Your task to perform on an android device: remove spam from my inbox in the gmail app Image 0: 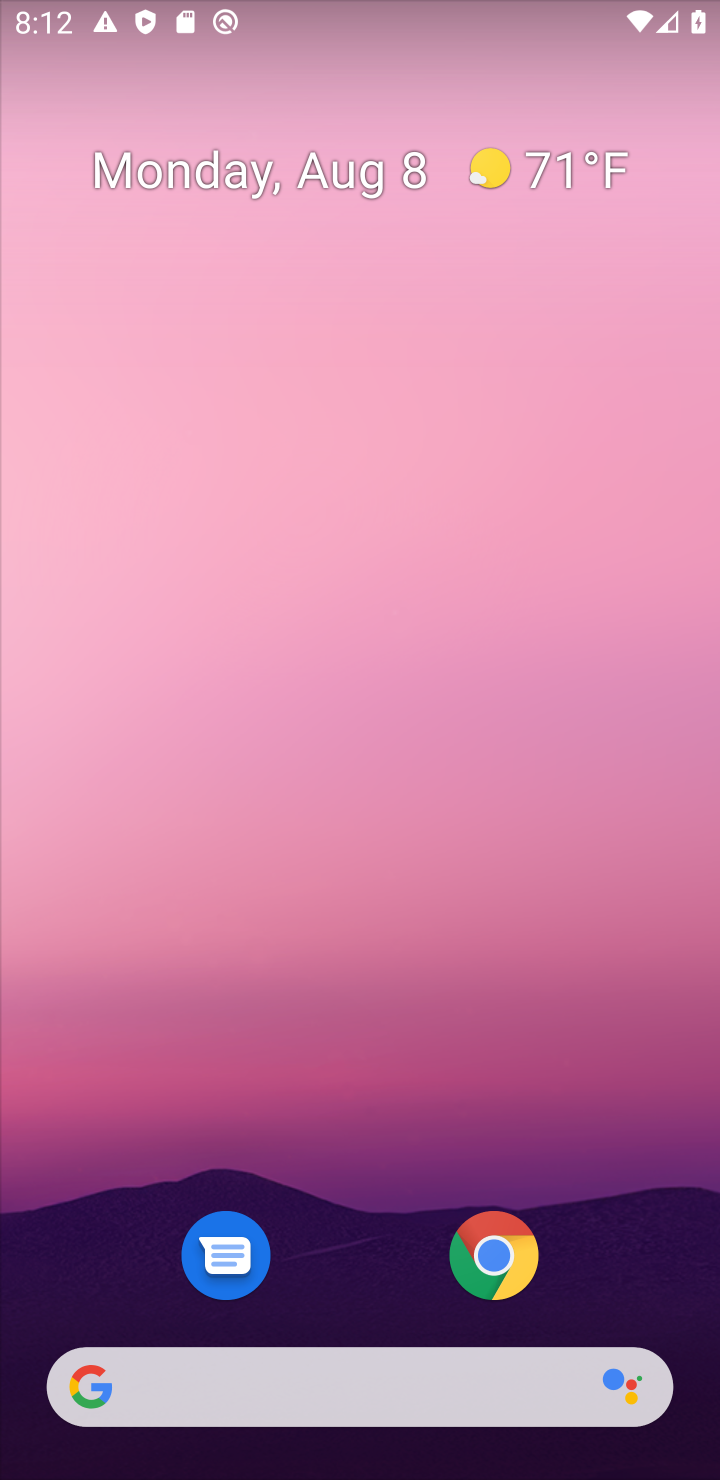
Step 0: drag from (345, 1243) to (293, 128)
Your task to perform on an android device: remove spam from my inbox in the gmail app Image 1: 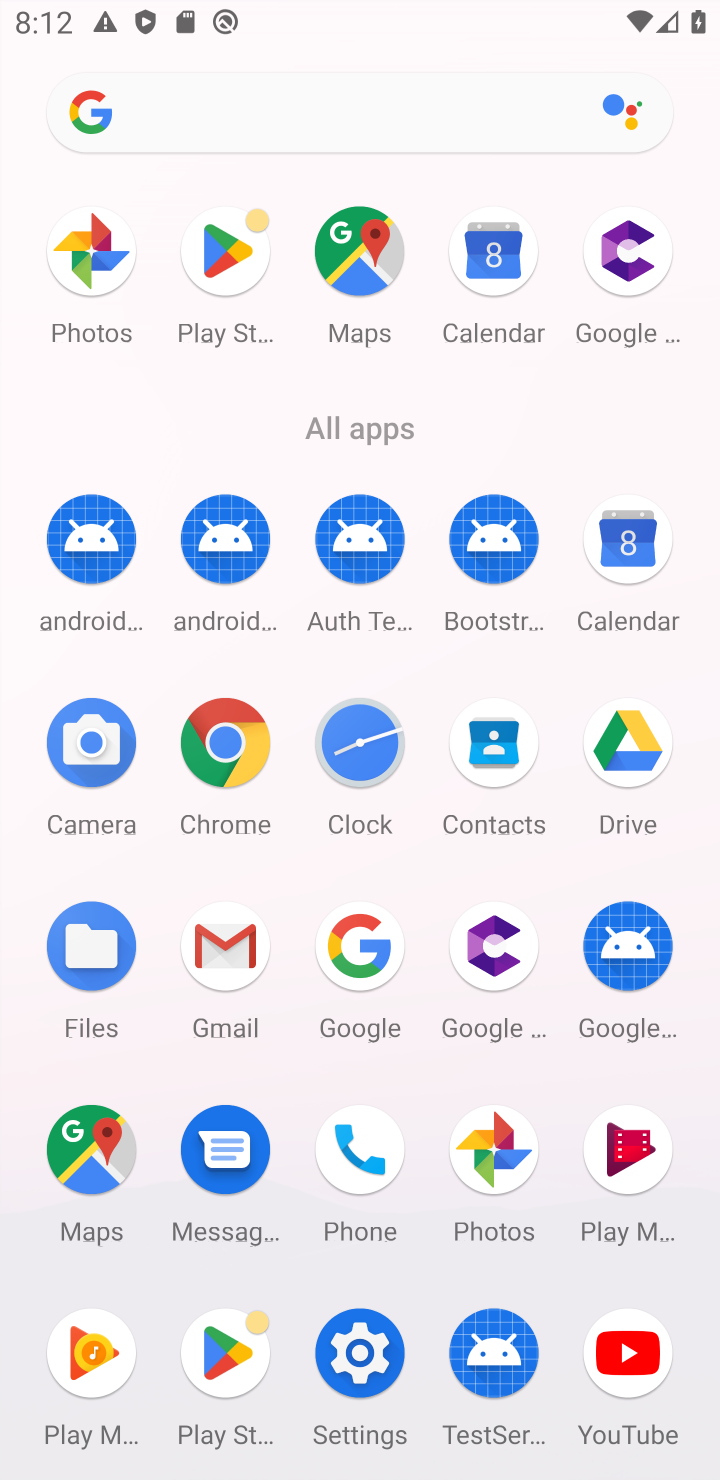
Step 1: click (263, 932)
Your task to perform on an android device: remove spam from my inbox in the gmail app Image 2: 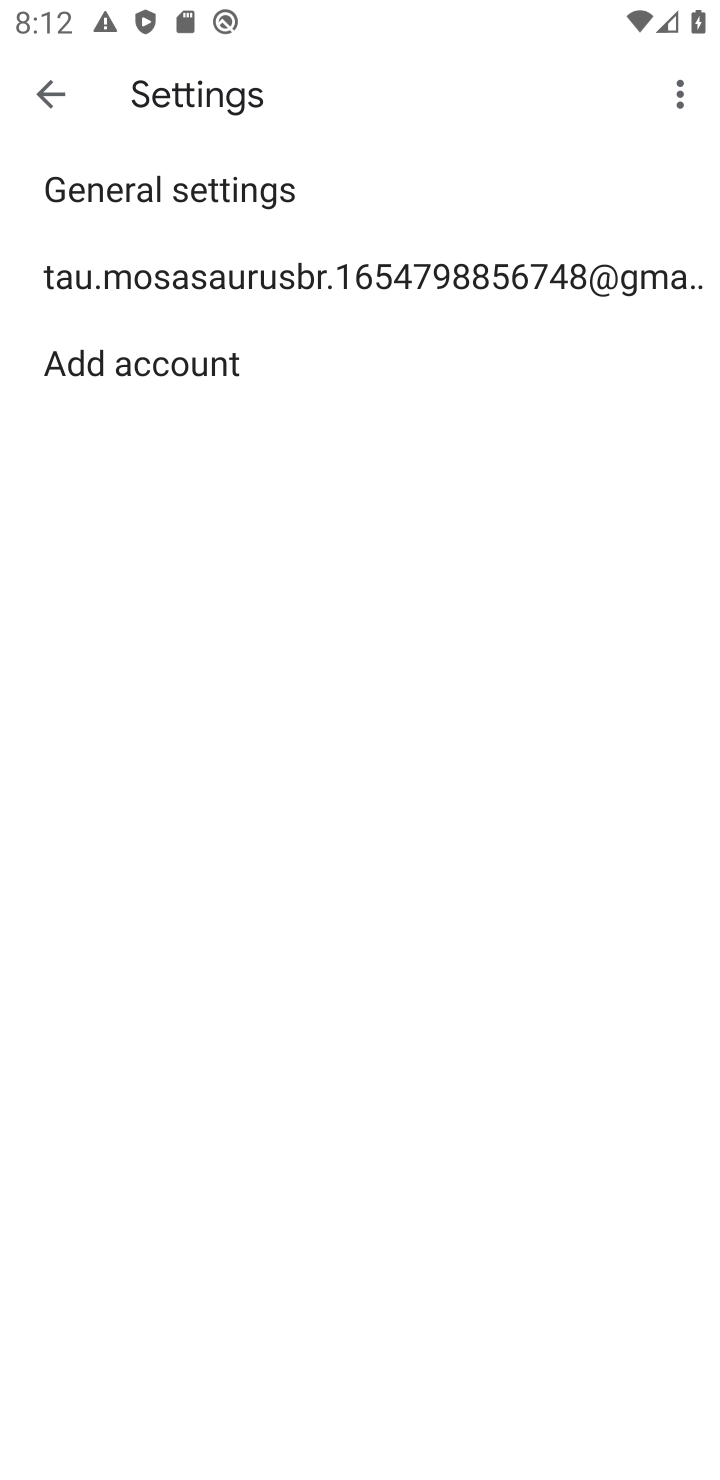
Step 2: click (56, 88)
Your task to perform on an android device: remove spam from my inbox in the gmail app Image 3: 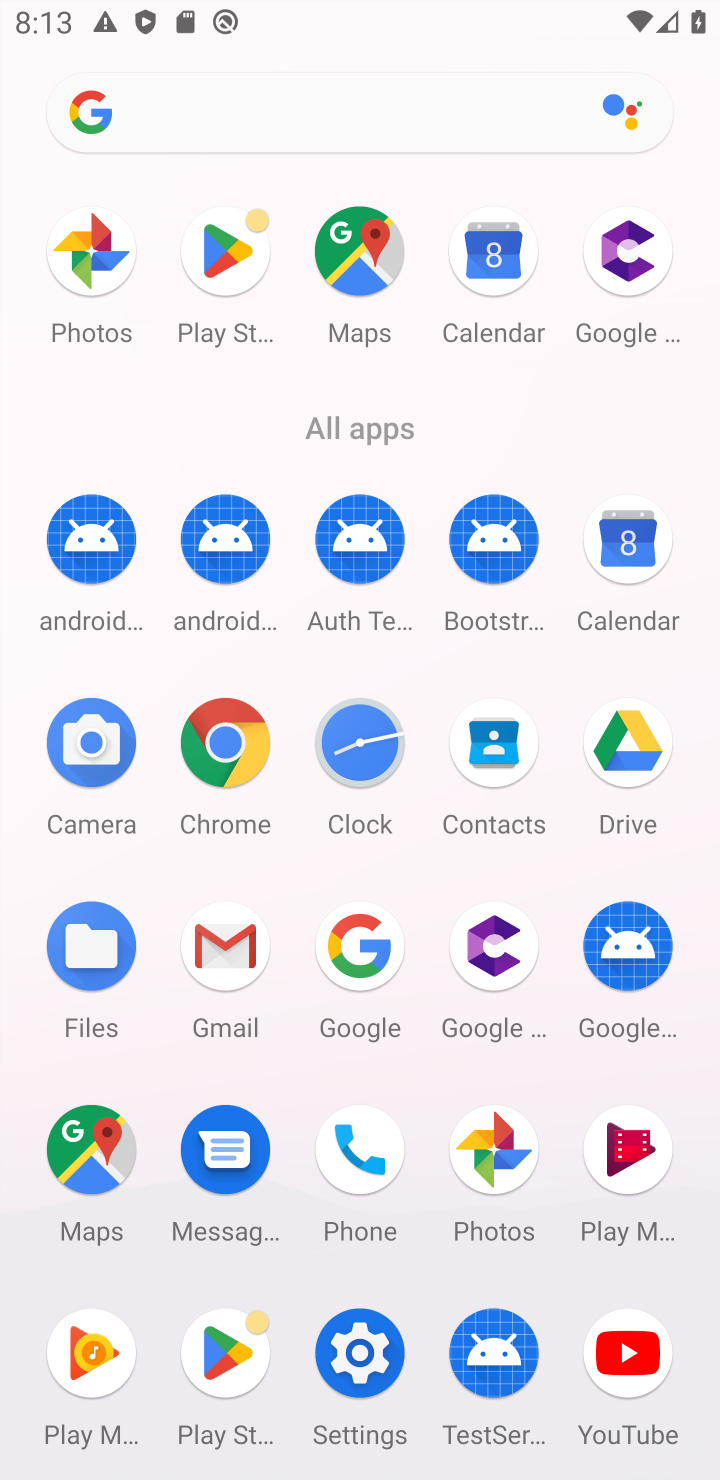
Step 3: click (235, 971)
Your task to perform on an android device: remove spam from my inbox in the gmail app Image 4: 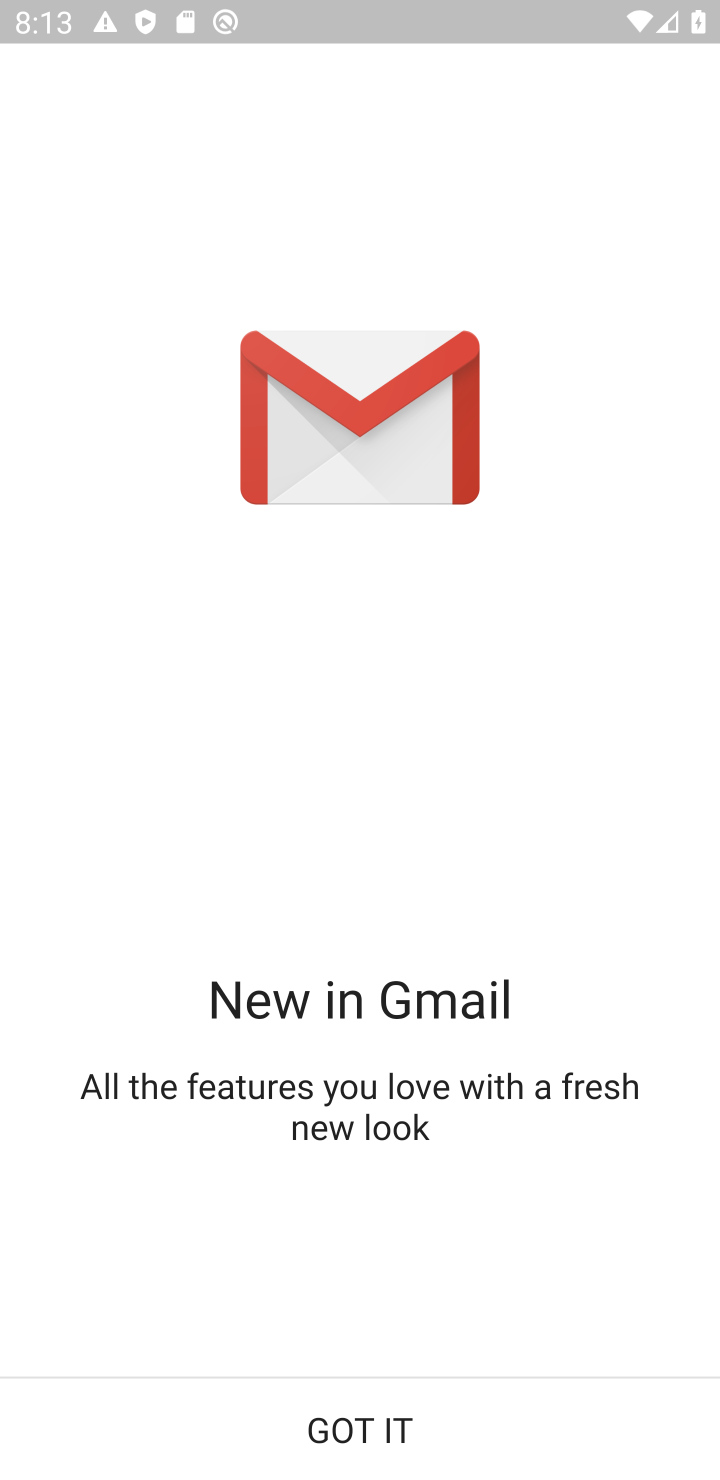
Step 4: click (353, 1426)
Your task to perform on an android device: remove spam from my inbox in the gmail app Image 5: 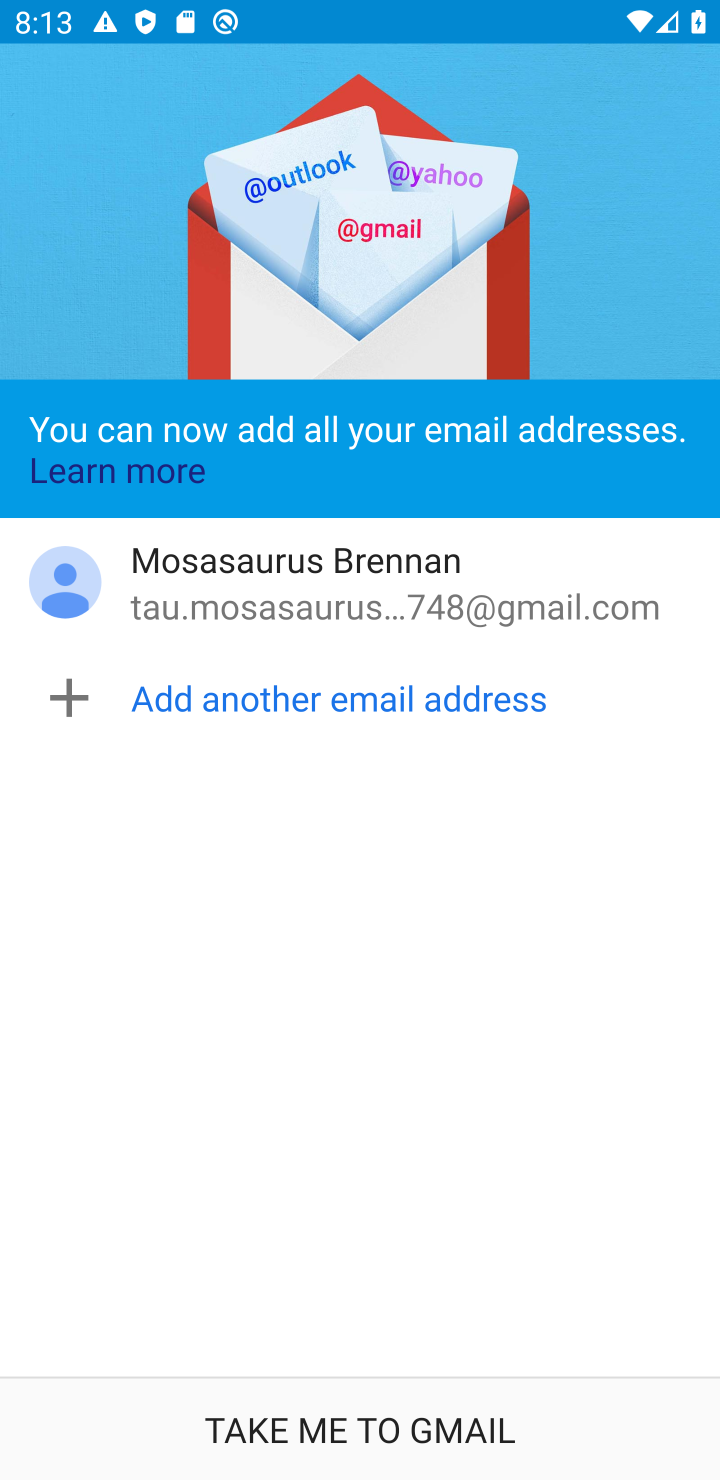
Step 5: click (353, 1426)
Your task to perform on an android device: remove spam from my inbox in the gmail app Image 6: 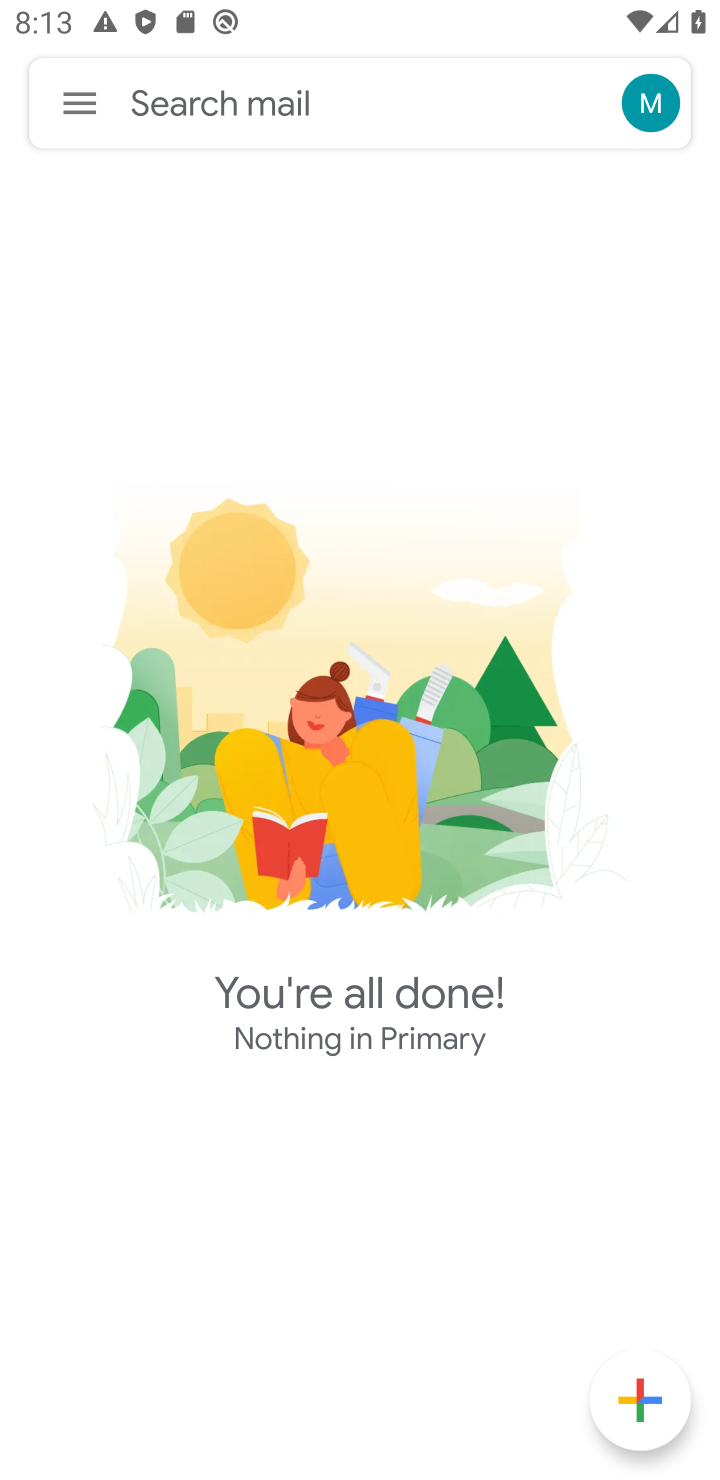
Step 6: click (71, 137)
Your task to perform on an android device: remove spam from my inbox in the gmail app Image 7: 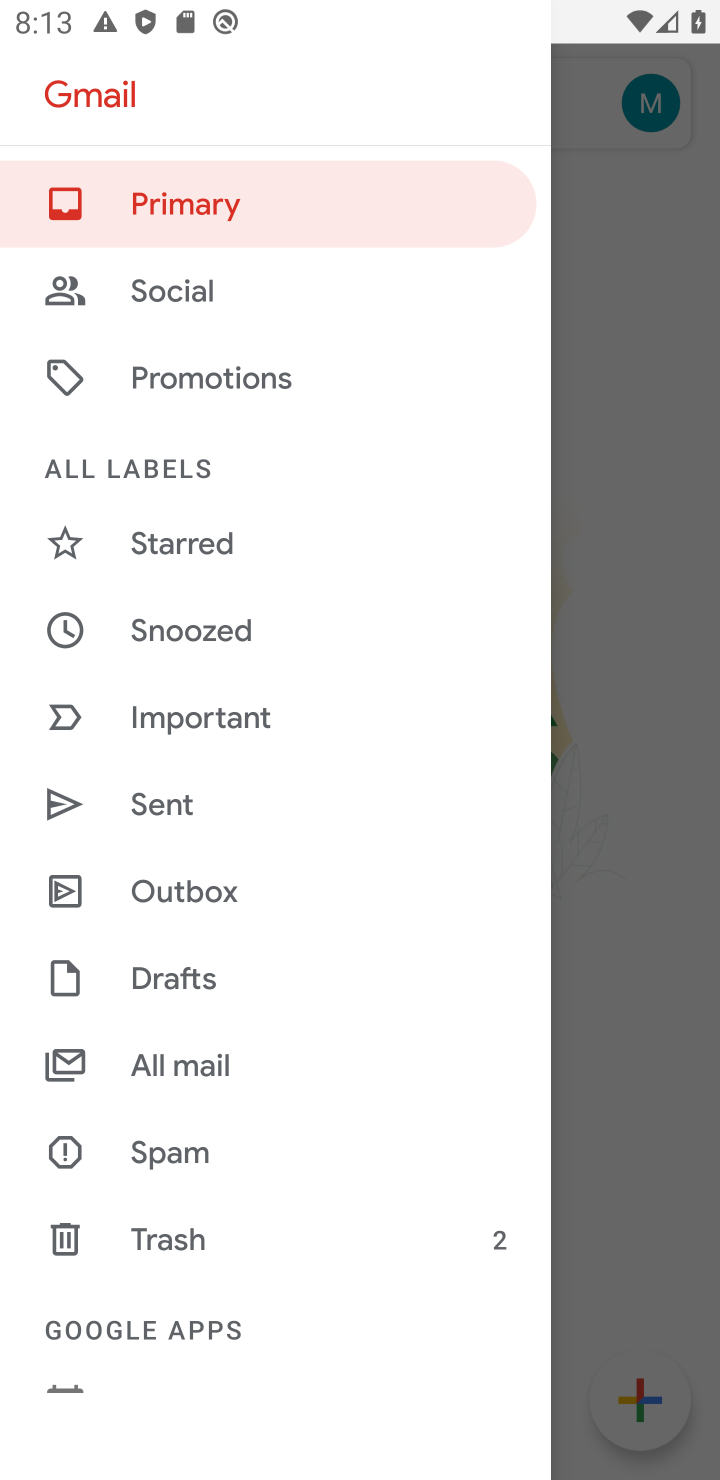
Step 7: click (185, 1163)
Your task to perform on an android device: remove spam from my inbox in the gmail app Image 8: 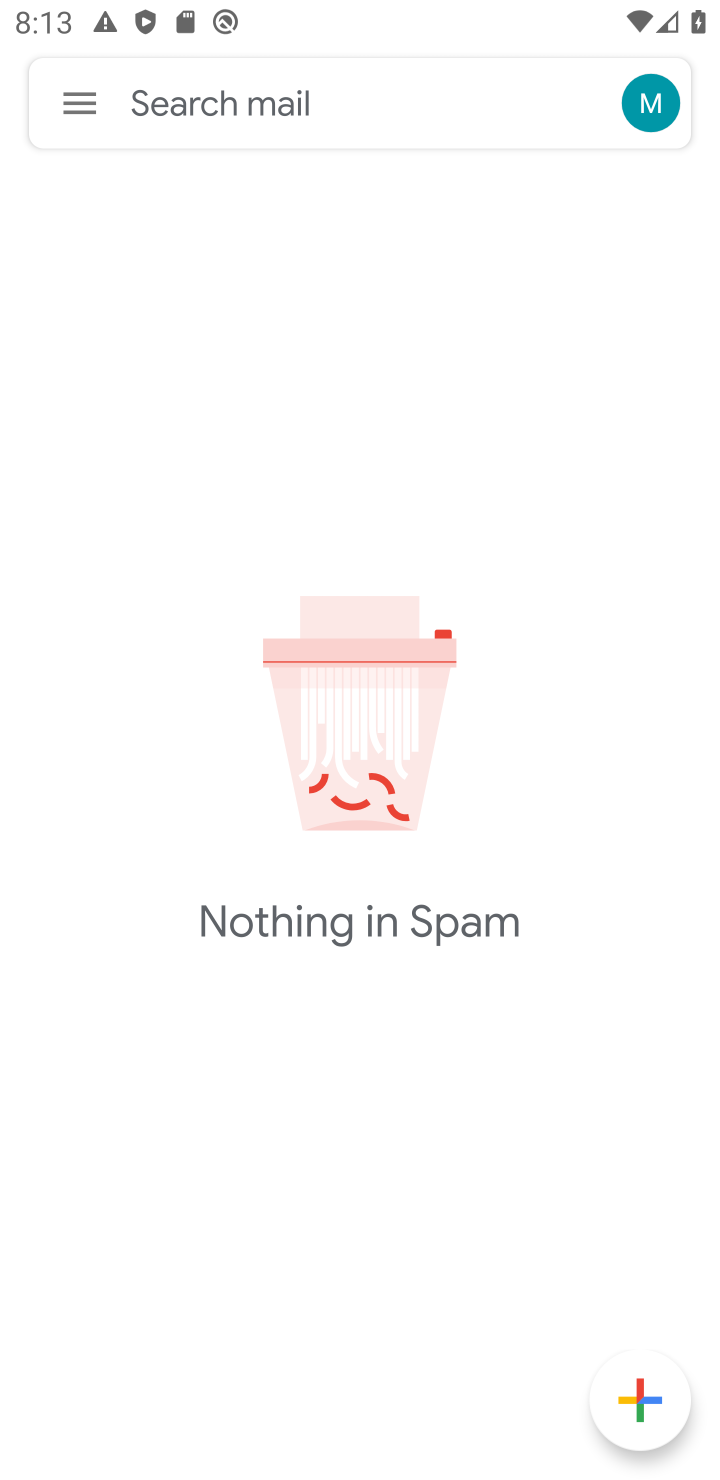
Step 8: task complete